Your task to perform on an android device: Turn off the flashlight Image 0: 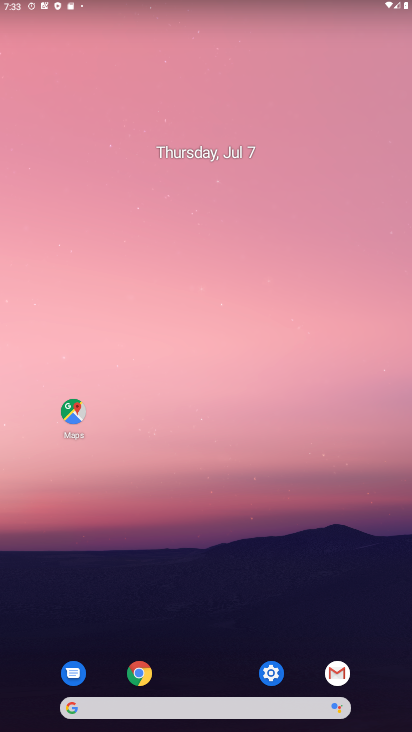
Step 0: click (270, 676)
Your task to perform on an android device: Turn off the flashlight Image 1: 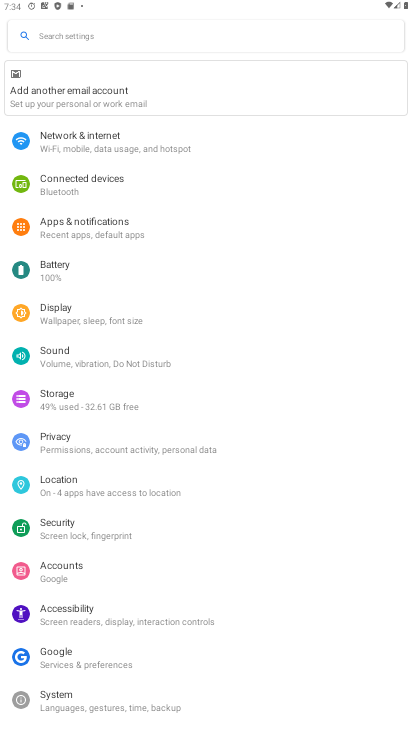
Step 1: click (66, 42)
Your task to perform on an android device: Turn off the flashlight Image 2: 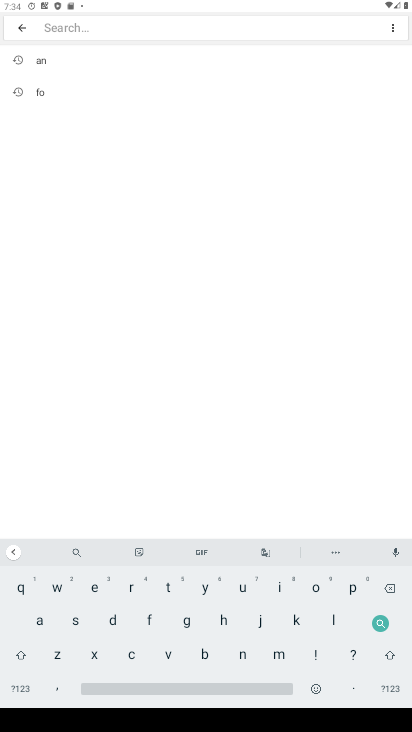
Step 2: click (148, 619)
Your task to perform on an android device: Turn off the flashlight Image 3: 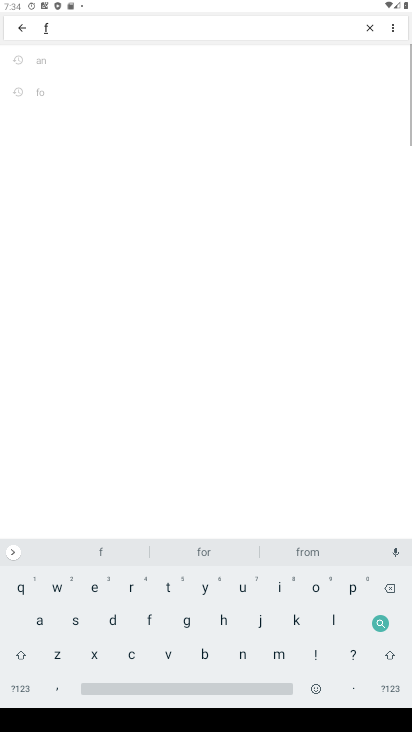
Step 3: click (335, 622)
Your task to perform on an android device: Turn off the flashlight Image 4: 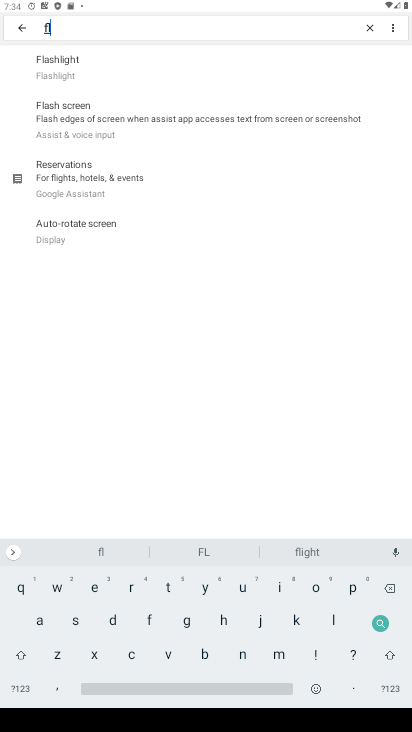
Step 4: click (101, 77)
Your task to perform on an android device: Turn off the flashlight Image 5: 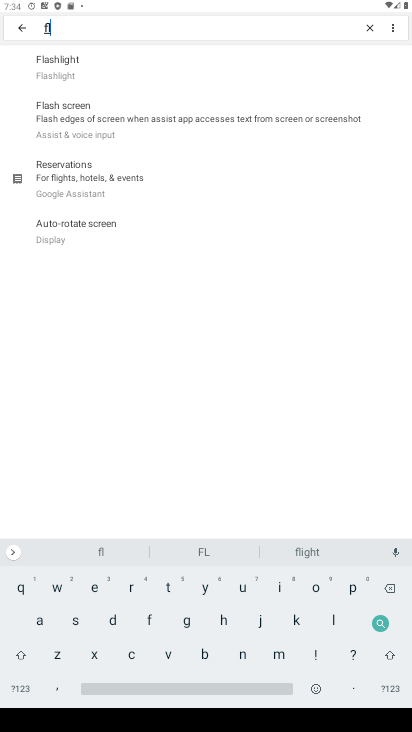
Step 5: click (101, 59)
Your task to perform on an android device: Turn off the flashlight Image 6: 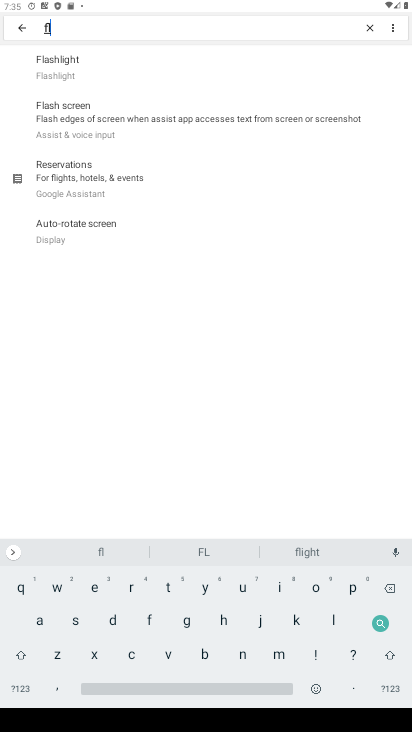
Step 6: task complete